Your task to perform on an android device: Is it going to rain today? Image 0: 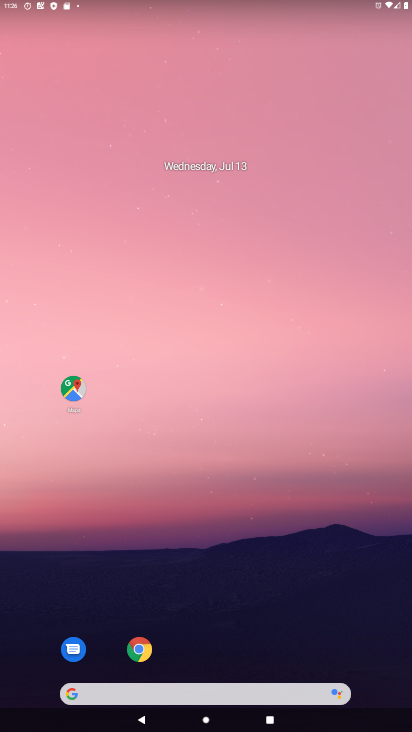
Step 0: drag from (262, 695) to (315, 235)
Your task to perform on an android device: Is it going to rain today? Image 1: 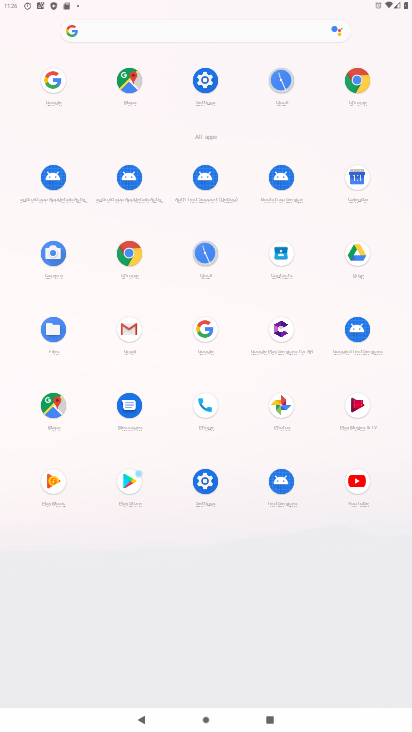
Step 1: click (51, 80)
Your task to perform on an android device: Is it going to rain today? Image 2: 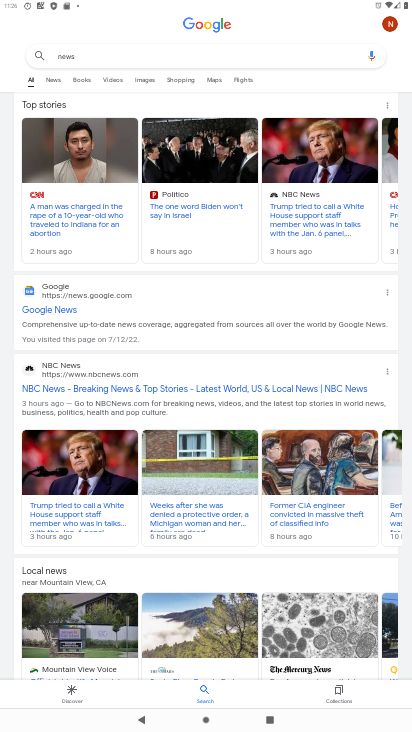
Step 2: click (225, 51)
Your task to perform on an android device: Is it going to rain today? Image 3: 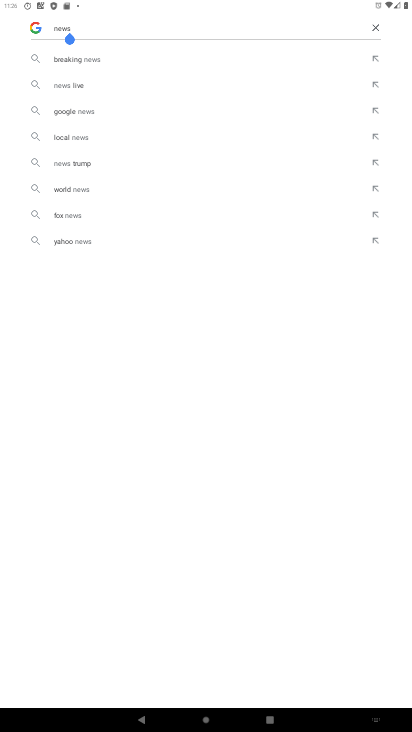
Step 3: click (377, 30)
Your task to perform on an android device: Is it going to rain today? Image 4: 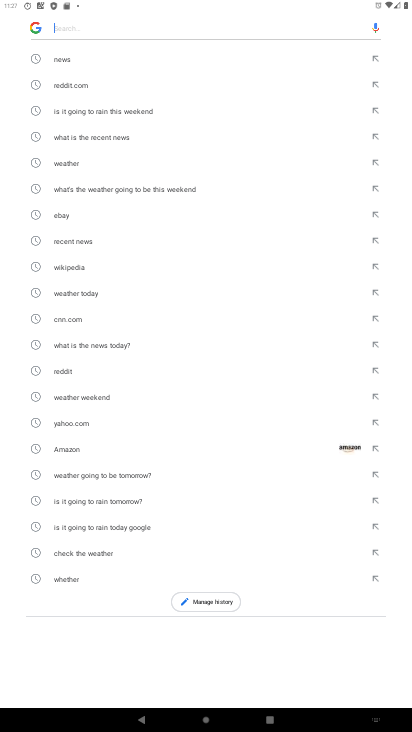
Step 4: type "Is it going to rain today?"
Your task to perform on an android device: Is it going to rain today? Image 5: 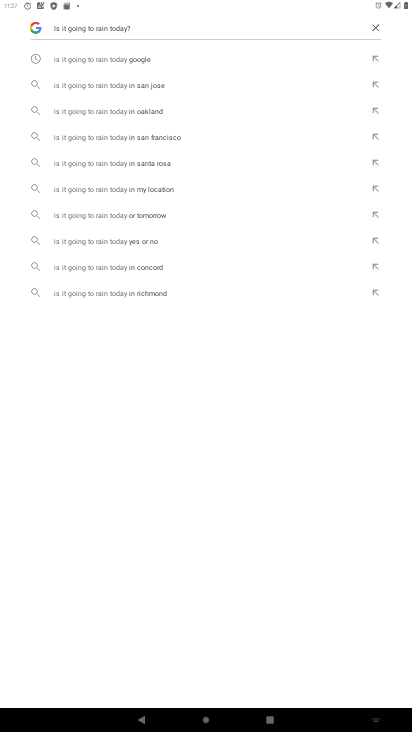
Step 5: click (92, 77)
Your task to perform on an android device: Is it going to rain today? Image 6: 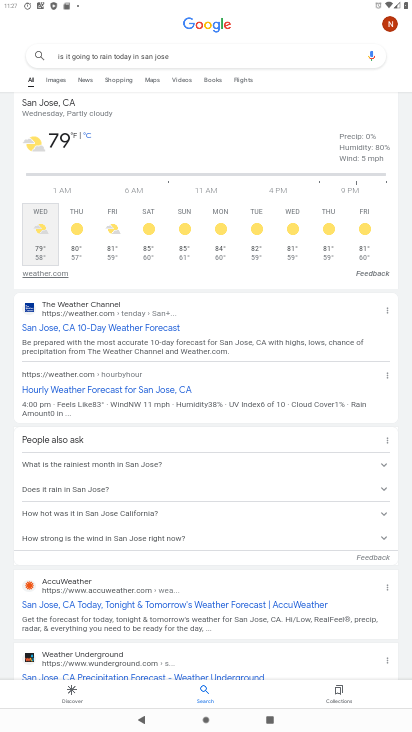
Step 6: task complete